Your task to perform on an android device: snooze an email in the gmail app Image 0: 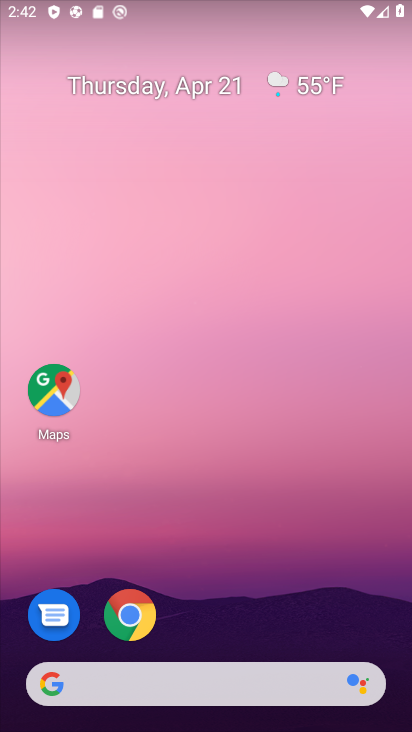
Step 0: press home button
Your task to perform on an android device: snooze an email in the gmail app Image 1: 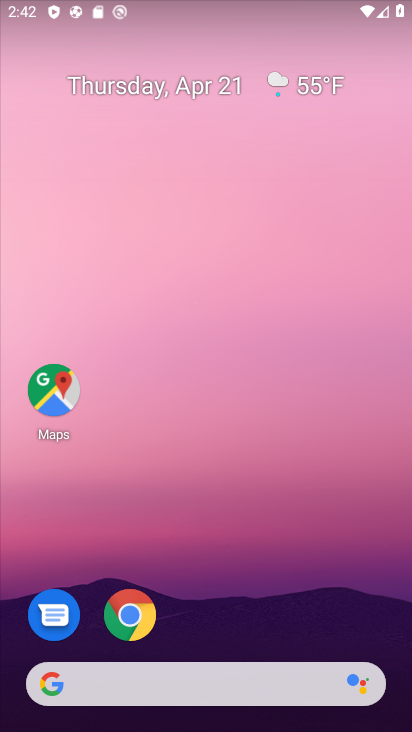
Step 1: drag from (233, 679) to (261, 56)
Your task to perform on an android device: snooze an email in the gmail app Image 2: 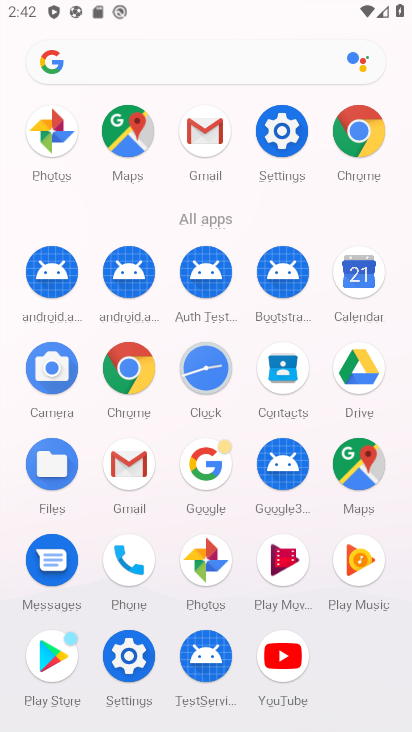
Step 2: click (211, 134)
Your task to perform on an android device: snooze an email in the gmail app Image 3: 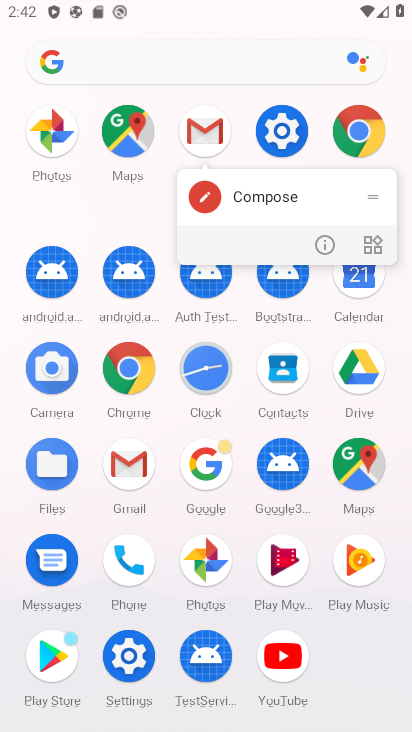
Step 3: click (209, 138)
Your task to perform on an android device: snooze an email in the gmail app Image 4: 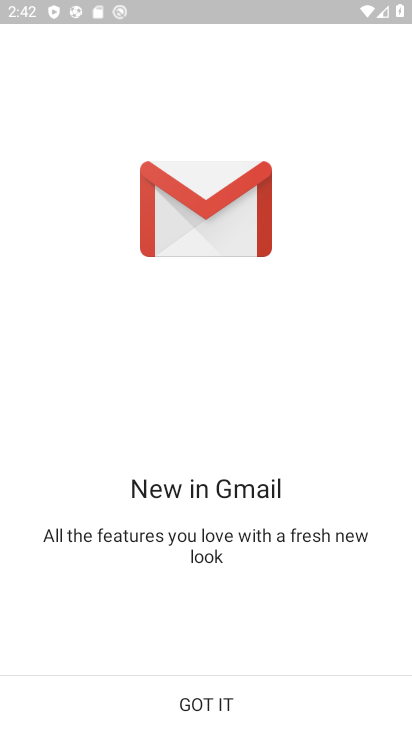
Step 4: click (220, 704)
Your task to perform on an android device: snooze an email in the gmail app Image 5: 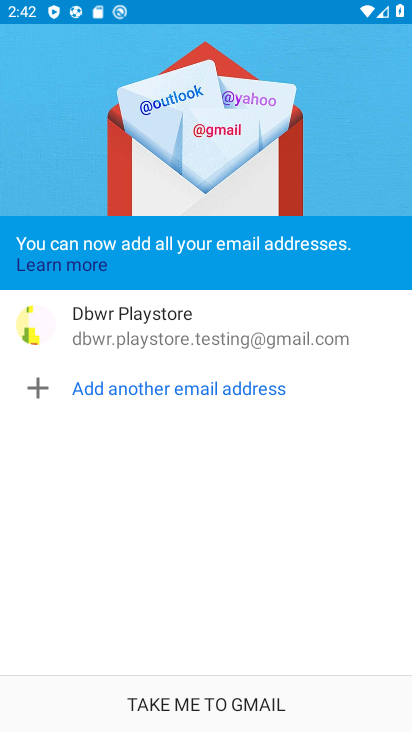
Step 5: click (220, 703)
Your task to perform on an android device: snooze an email in the gmail app Image 6: 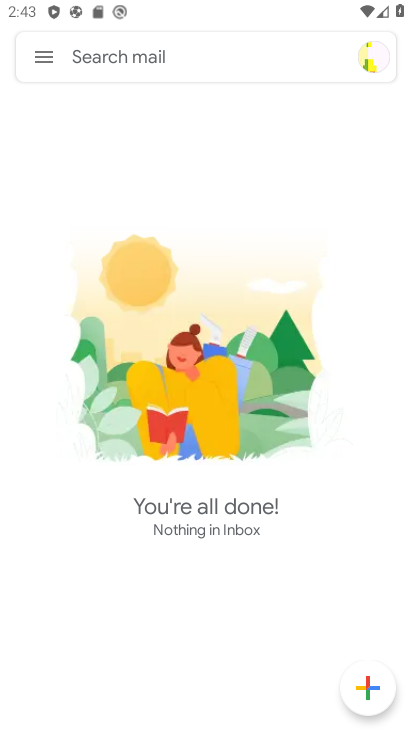
Step 6: task complete